Your task to perform on an android device: open app "Flipkart Online Shopping App" (install if not already installed) and enter user name: "fostered@gmail.com" and password: "negotiated" Image 0: 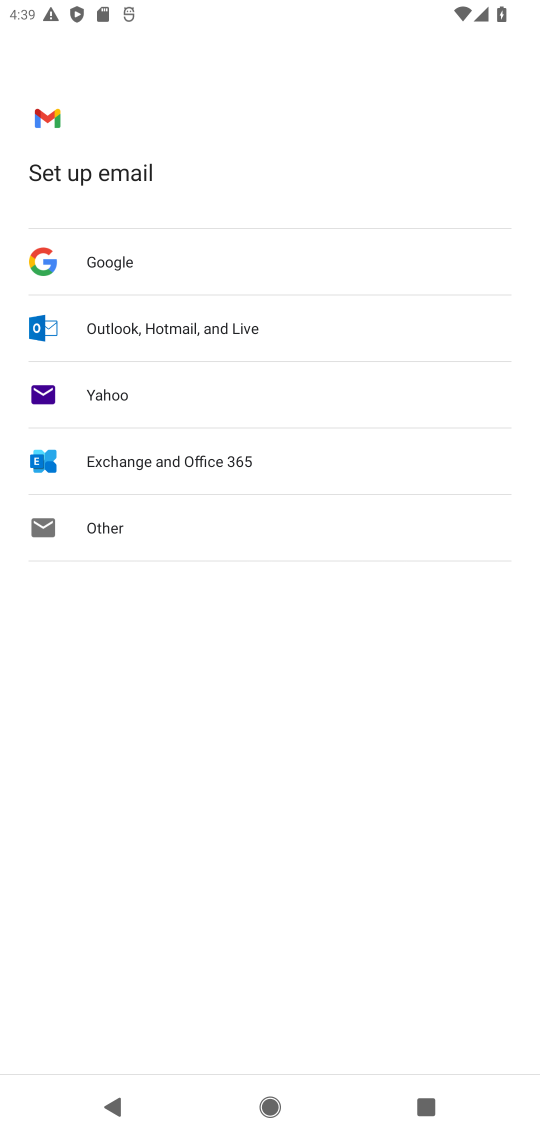
Step 0: press home button
Your task to perform on an android device: open app "Flipkart Online Shopping App" (install if not already installed) and enter user name: "fostered@gmail.com" and password: "negotiated" Image 1: 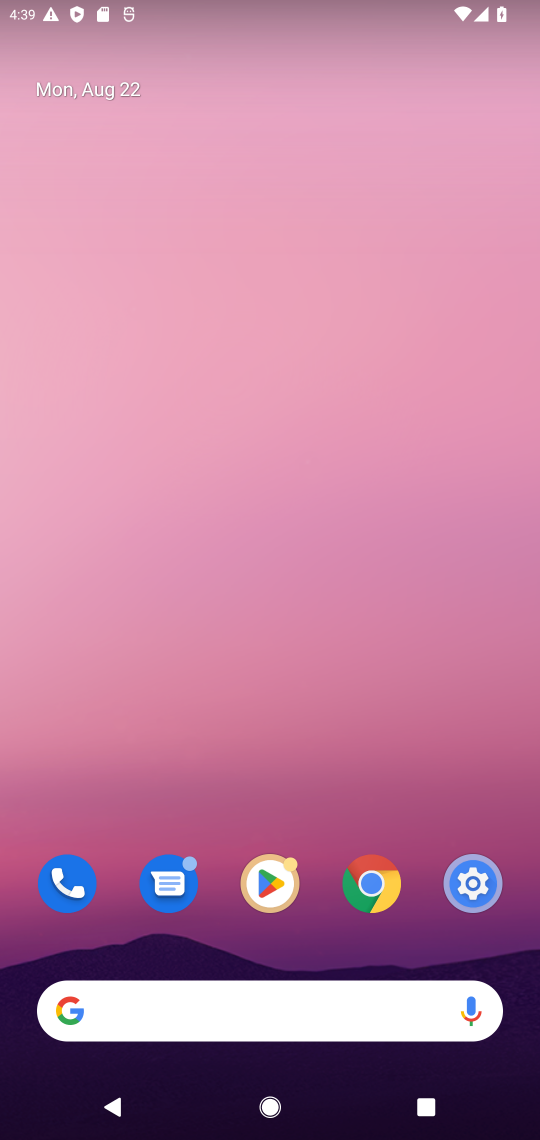
Step 1: drag from (245, 966) to (242, 684)
Your task to perform on an android device: open app "Flipkart Online Shopping App" (install if not already installed) and enter user name: "fostered@gmail.com" and password: "negotiated" Image 2: 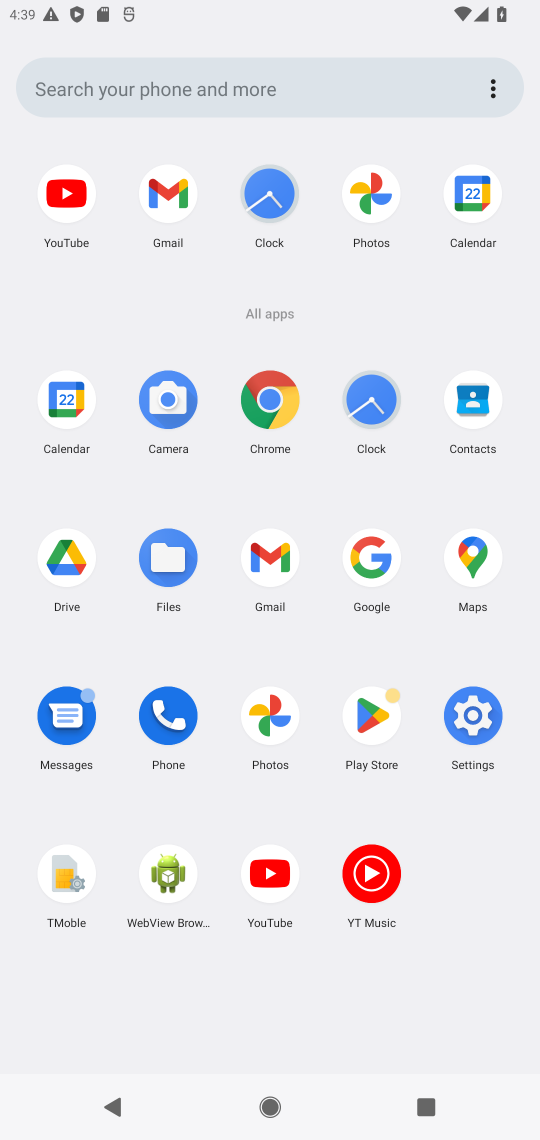
Step 2: click (352, 707)
Your task to perform on an android device: open app "Flipkart Online Shopping App" (install if not already installed) and enter user name: "fostered@gmail.com" and password: "negotiated" Image 3: 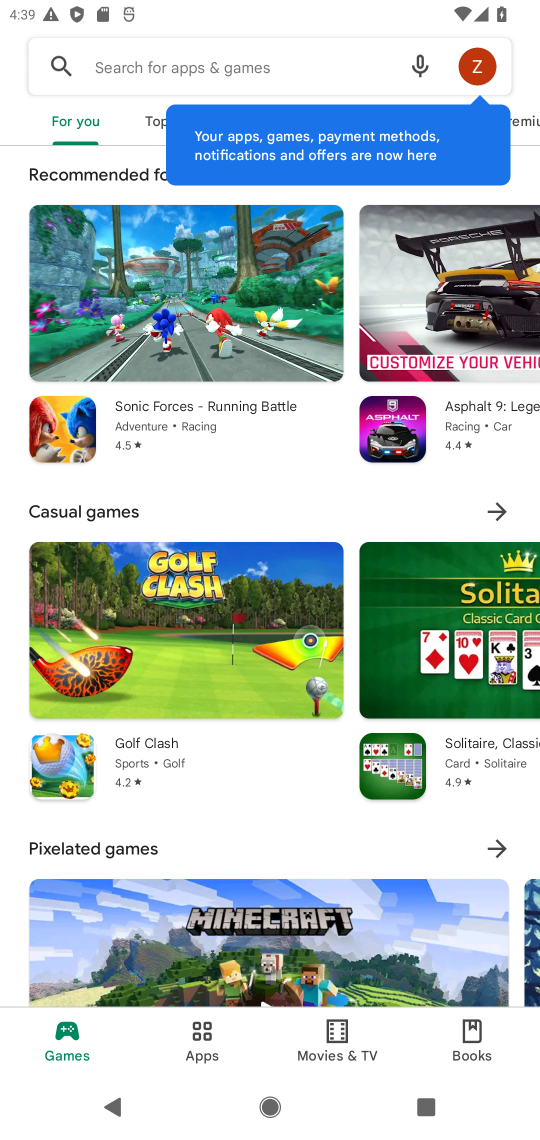
Step 3: click (223, 62)
Your task to perform on an android device: open app "Flipkart Online Shopping App" (install if not already installed) and enter user name: "fostered@gmail.com" and password: "negotiated" Image 4: 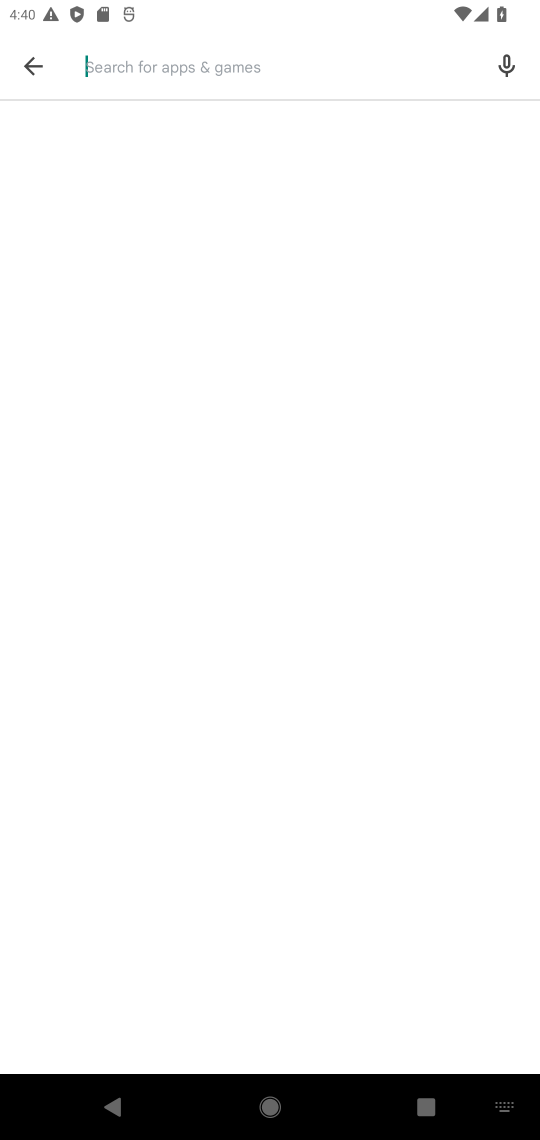
Step 4: type "Flipkart Online Shopping App"
Your task to perform on an android device: open app "Flipkart Online Shopping App" (install if not already installed) and enter user name: "fostered@gmail.com" and password: "negotiated" Image 5: 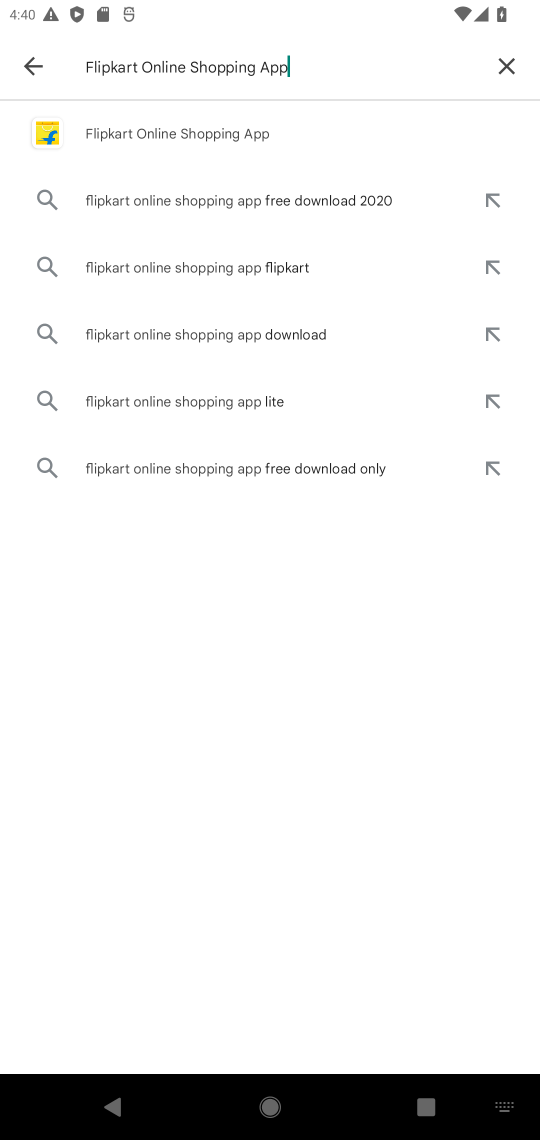
Step 5: click (189, 138)
Your task to perform on an android device: open app "Flipkart Online Shopping App" (install if not already installed) and enter user name: "fostered@gmail.com" and password: "negotiated" Image 6: 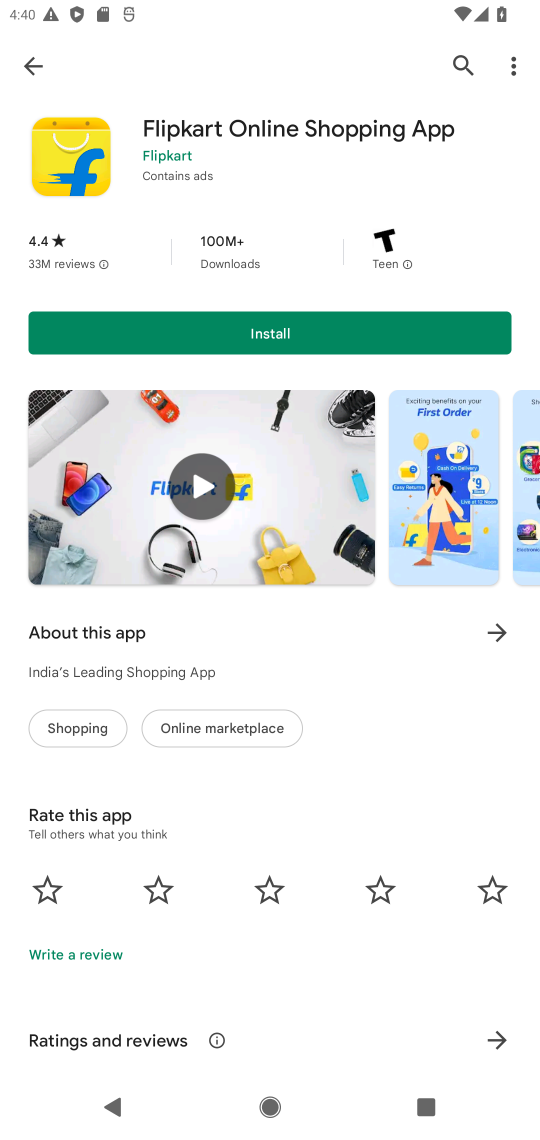
Step 6: click (293, 327)
Your task to perform on an android device: open app "Flipkart Online Shopping App" (install if not already installed) and enter user name: "fostered@gmail.com" and password: "negotiated" Image 7: 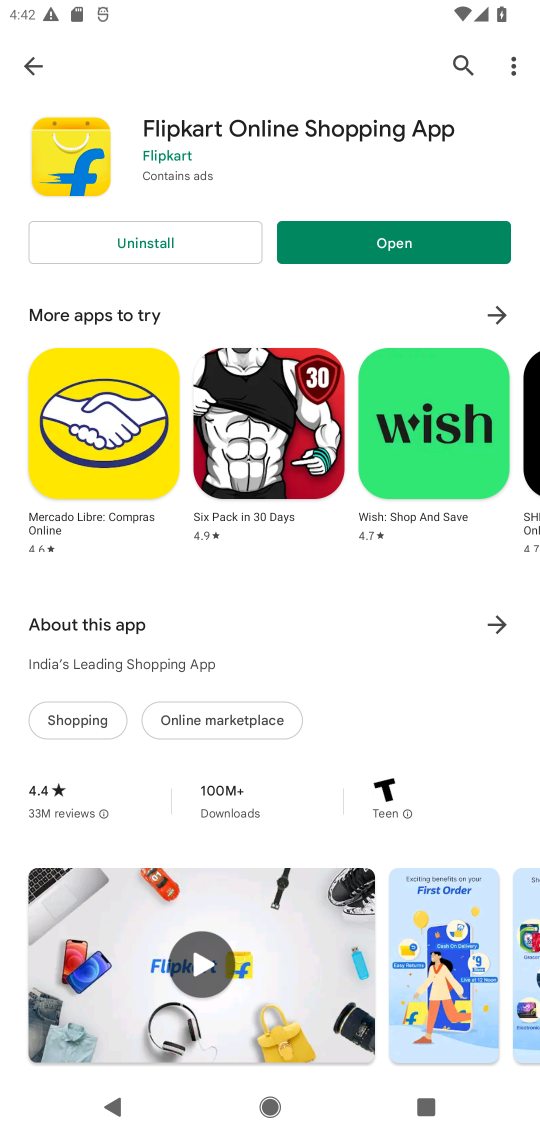
Step 7: click (387, 233)
Your task to perform on an android device: open app "Flipkart Online Shopping App" (install if not already installed) and enter user name: "fostered@gmail.com" and password: "negotiated" Image 8: 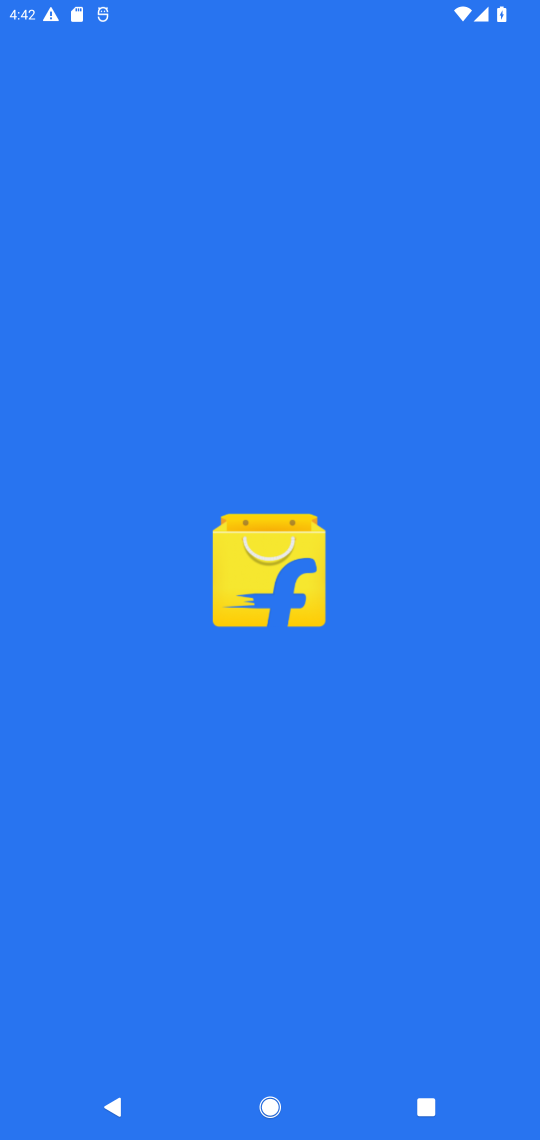
Step 8: task complete